Your task to perform on an android device: Is it going to rain this weekend? Image 0: 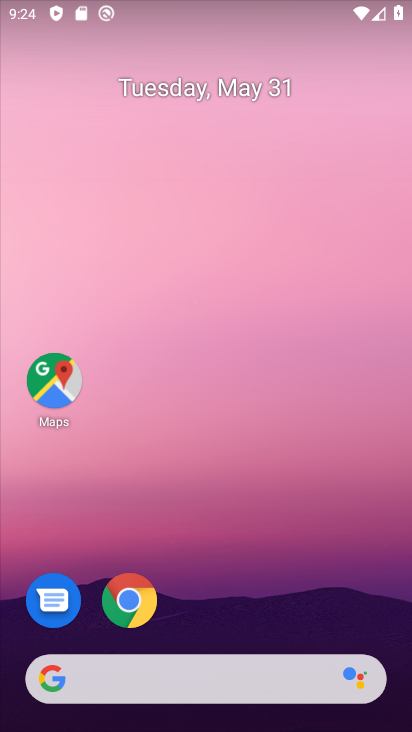
Step 0: drag from (213, 561) to (260, 130)
Your task to perform on an android device: Is it going to rain this weekend? Image 1: 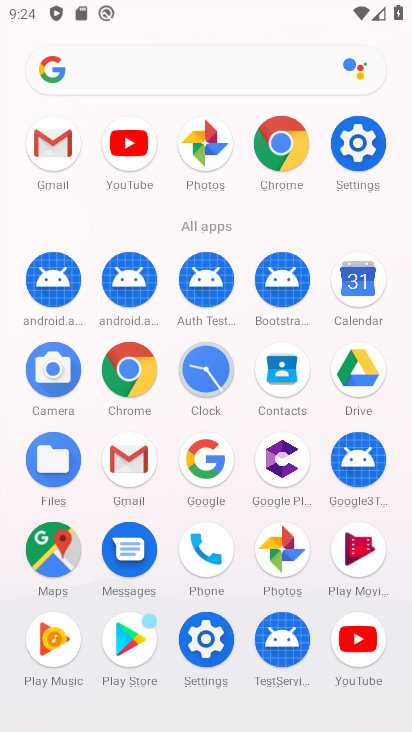
Step 1: click (147, 73)
Your task to perform on an android device: Is it going to rain this weekend? Image 2: 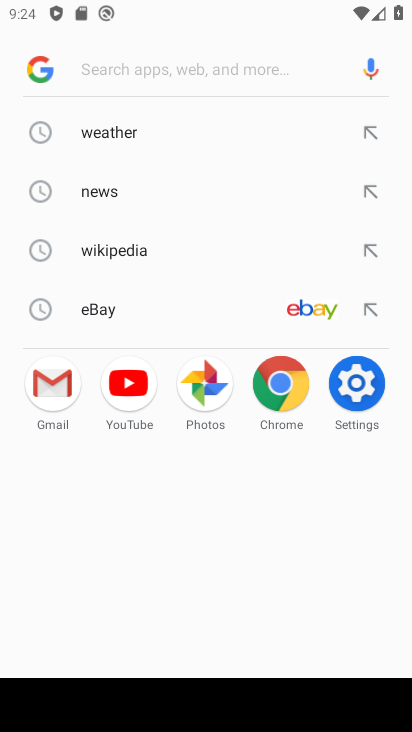
Step 2: click (128, 127)
Your task to perform on an android device: Is it going to rain this weekend? Image 3: 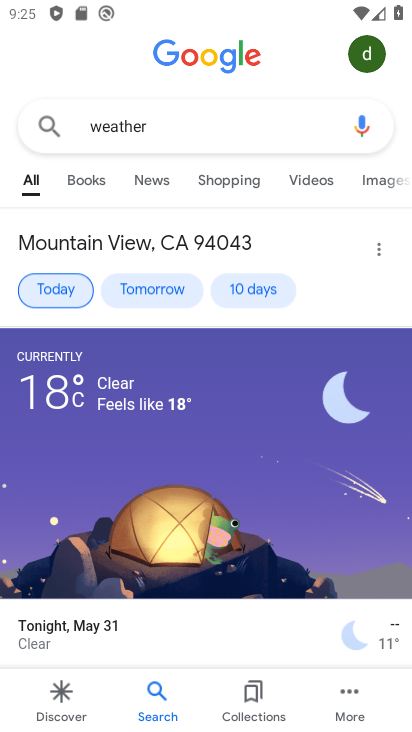
Step 3: click (241, 296)
Your task to perform on an android device: Is it going to rain this weekend? Image 4: 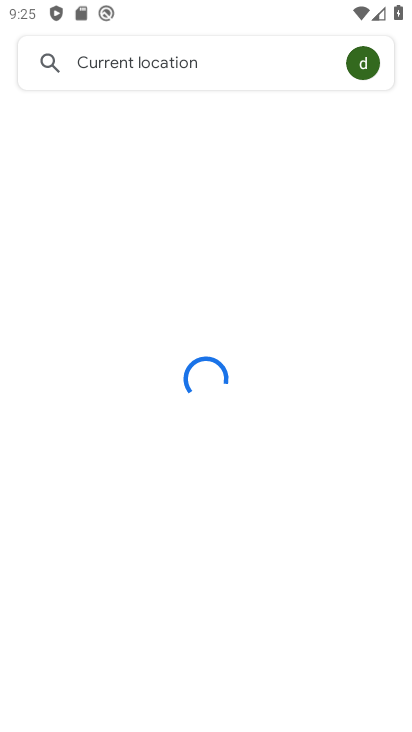
Step 4: click (256, 289)
Your task to perform on an android device: Is it going to rain this weekend? Image 5: 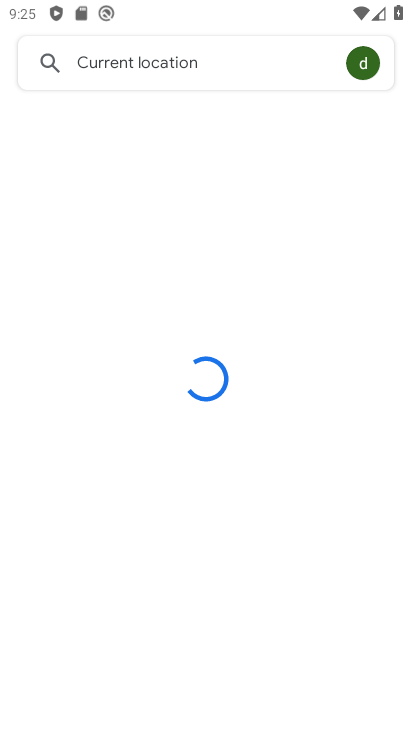
Step 5: task complete